Your task to perform on an android device: Open maps Image 0: 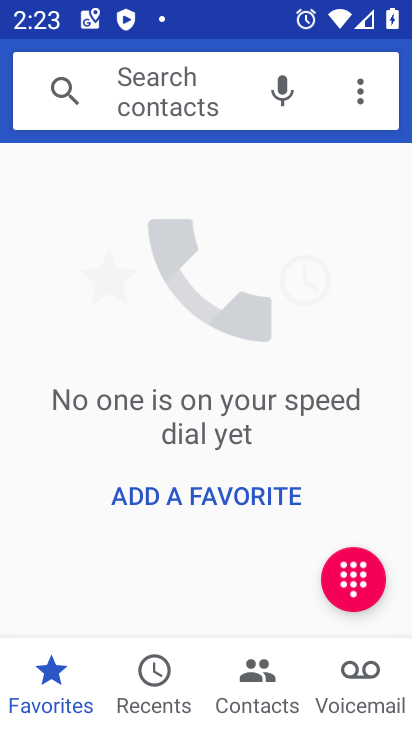
Step 0: press home button
Your task to perform on an android device: Open maps Image 1: 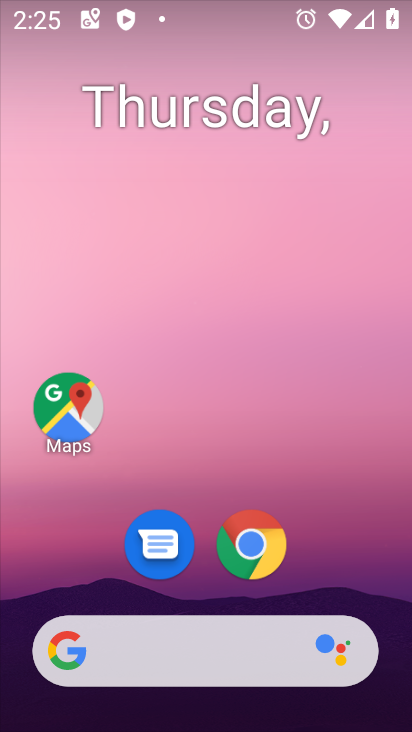
Step 1: click (87, 422)
Your task to perform on an android device: Open maps Image 2: 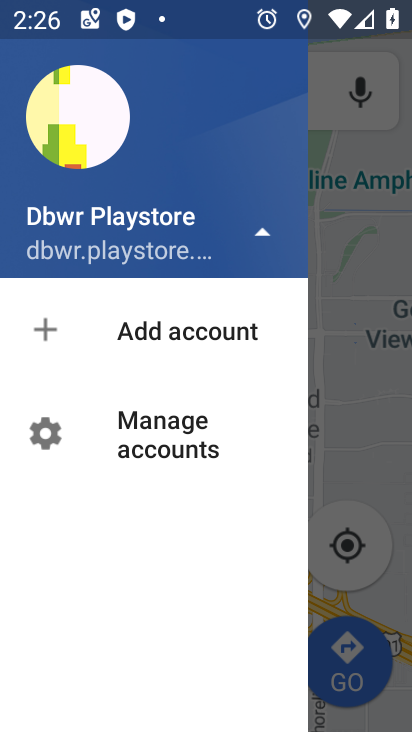
Step 2: task complete